Your task to perform on an android device: install app "Roku - Official Remote Control" Image 0: 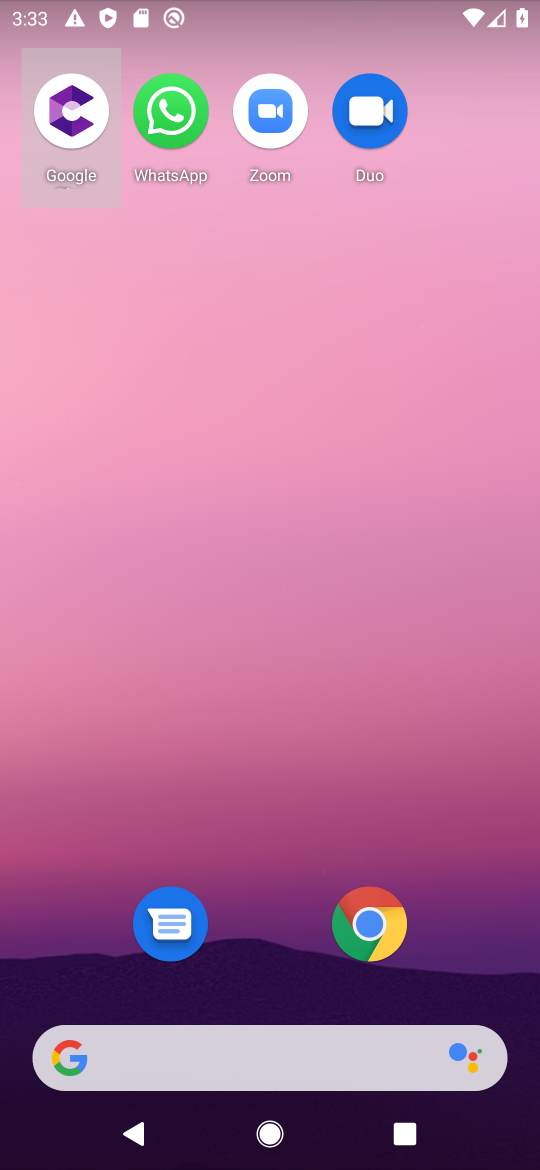
Step 0: drag from (350, 1116) to (344, 192)
Your task to perform on an android device: install app "Roku - Official Remote Control" Image 1: 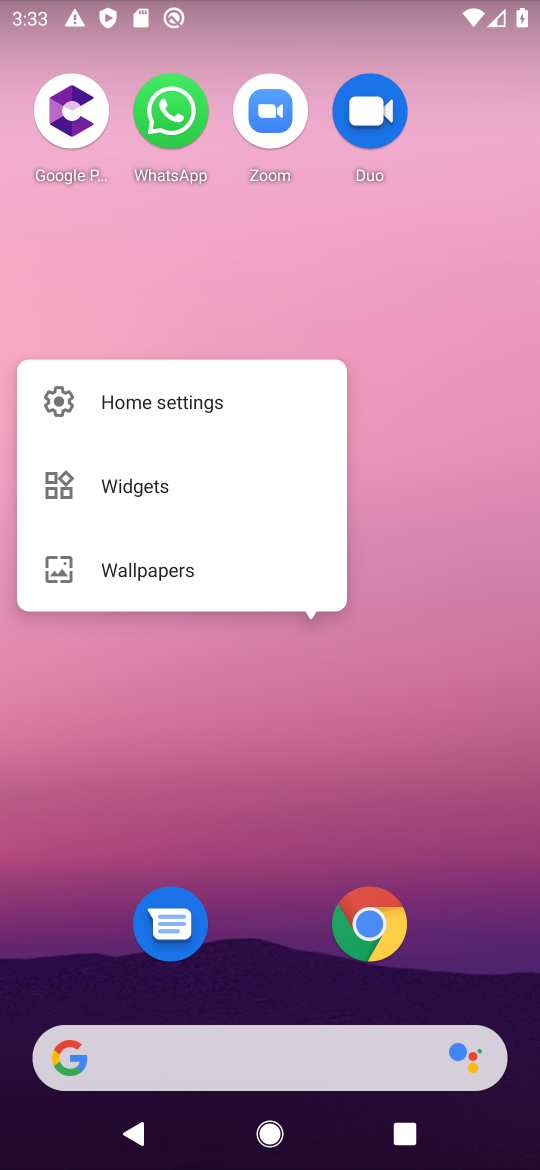
Step 1: drag from (222, 124) to (306, 158)
Your task to perform on an android device: install app "Roku - Official Remote Control" Image 2: 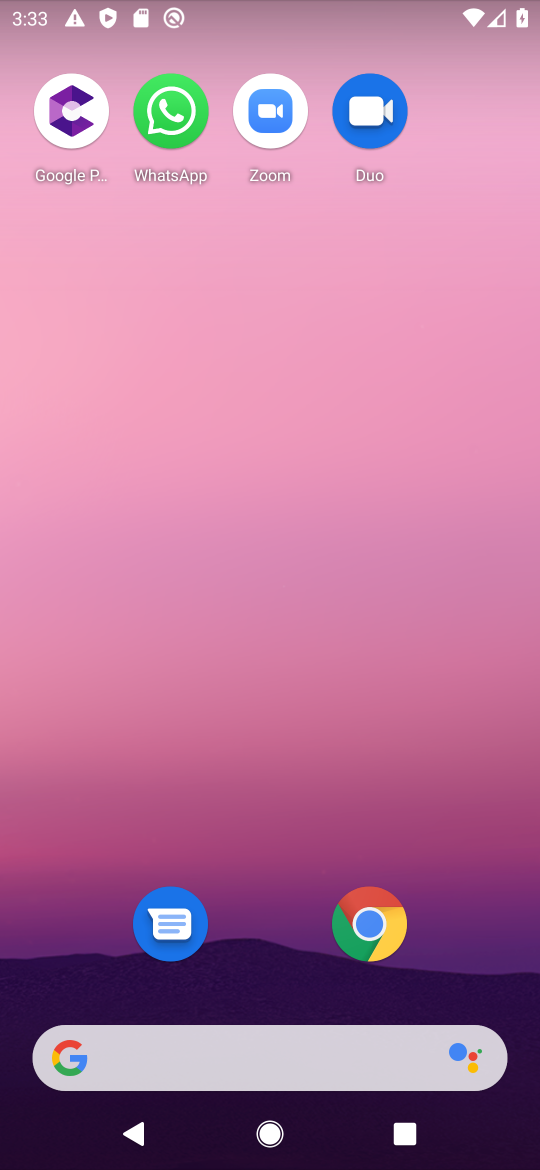
Step 2: click (307, 205)
Your task to perform on an android device: install app "Roku - Official Remote Control" Image 3: 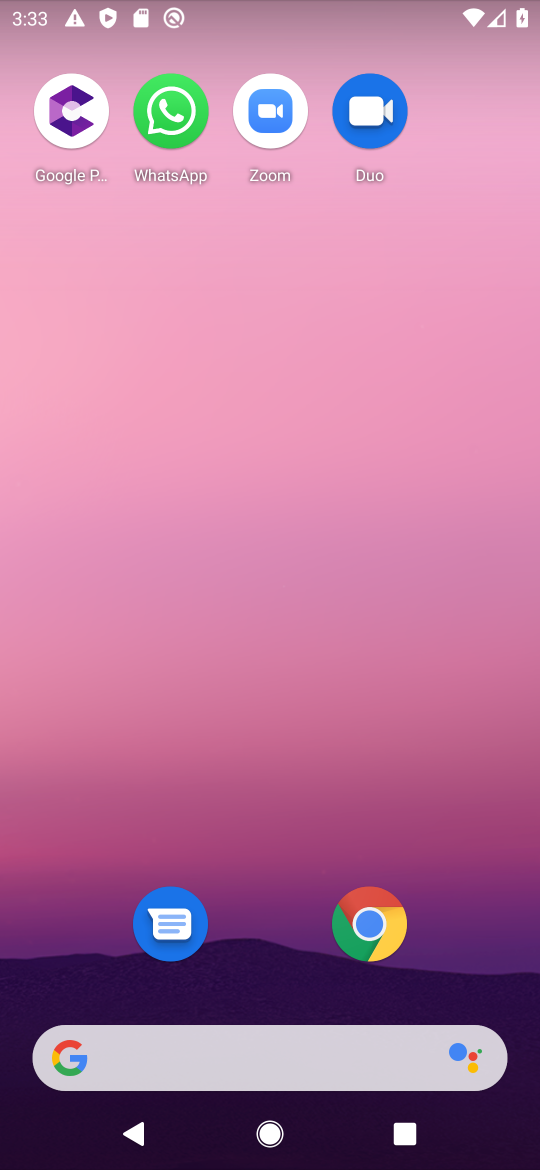
Step 3: drag from (193, 463) to (263, 235)
Your task to perform on an android device: install app "Roku - Official Remote Control" Image 4: 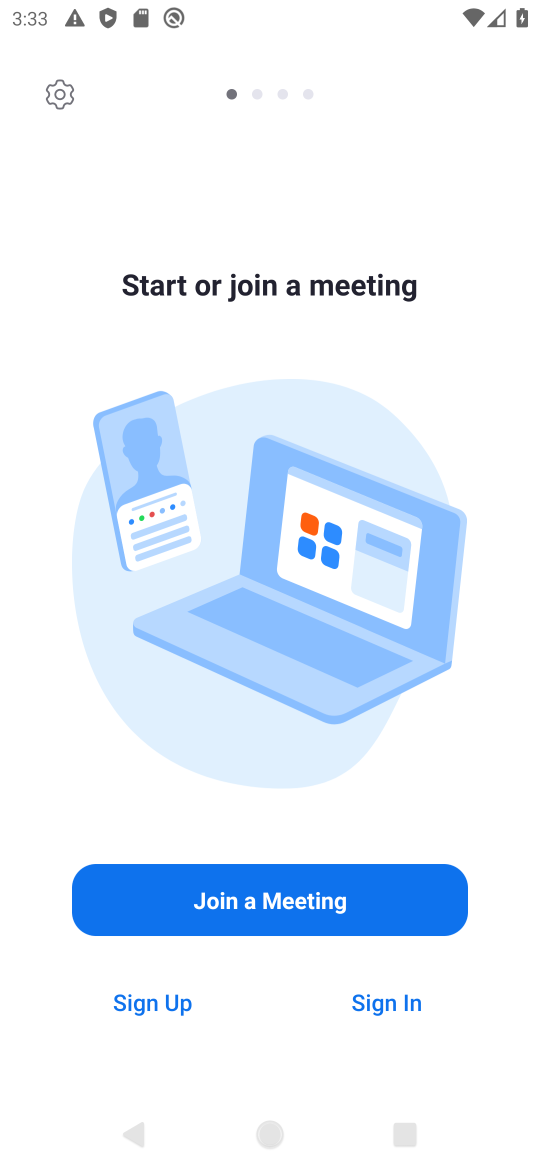
Step 4: drag from (260, 1075) to (187, 414)
Your task to perform on an android device: install app "Roku - Official Remote Control" Image 5: 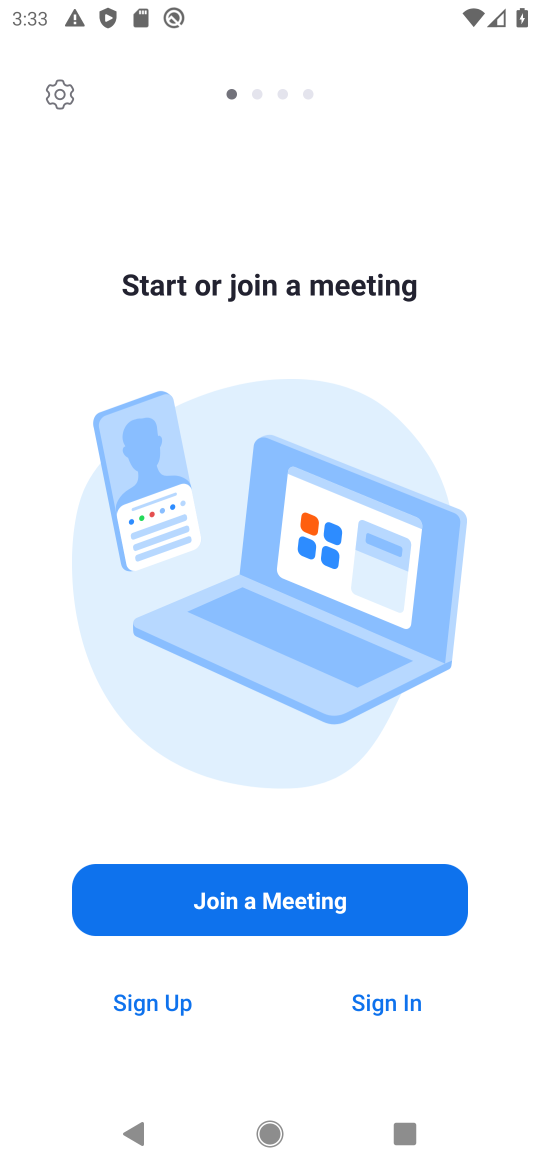
Step 5: press back button
Your task to perform on an android device: install app "Roku - Official Remote Control" Image 6: 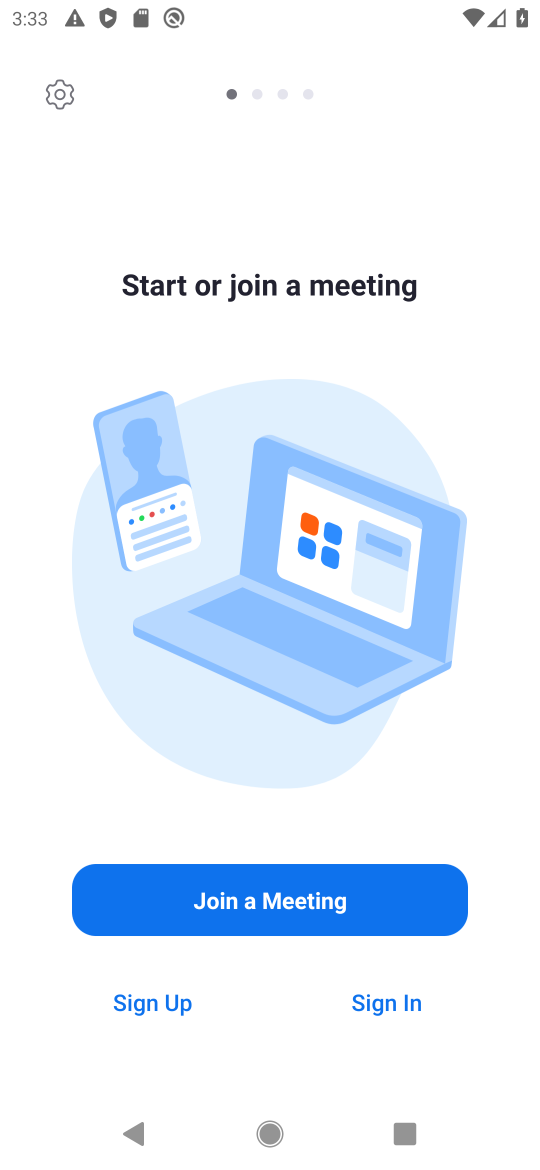
Step 6: press back button
Your task to perform on an android device: install app "Roku - Official Remote Control" Image 7: 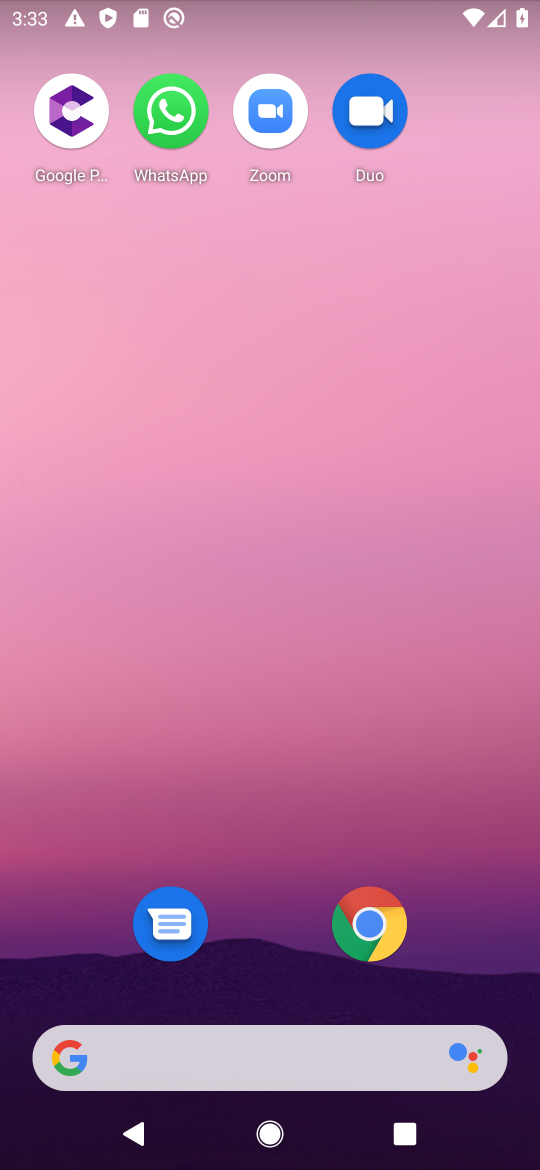
Step 7: press back button
Your task to perform on an android device: install app "Roku - Official Remote Control" Image 8: 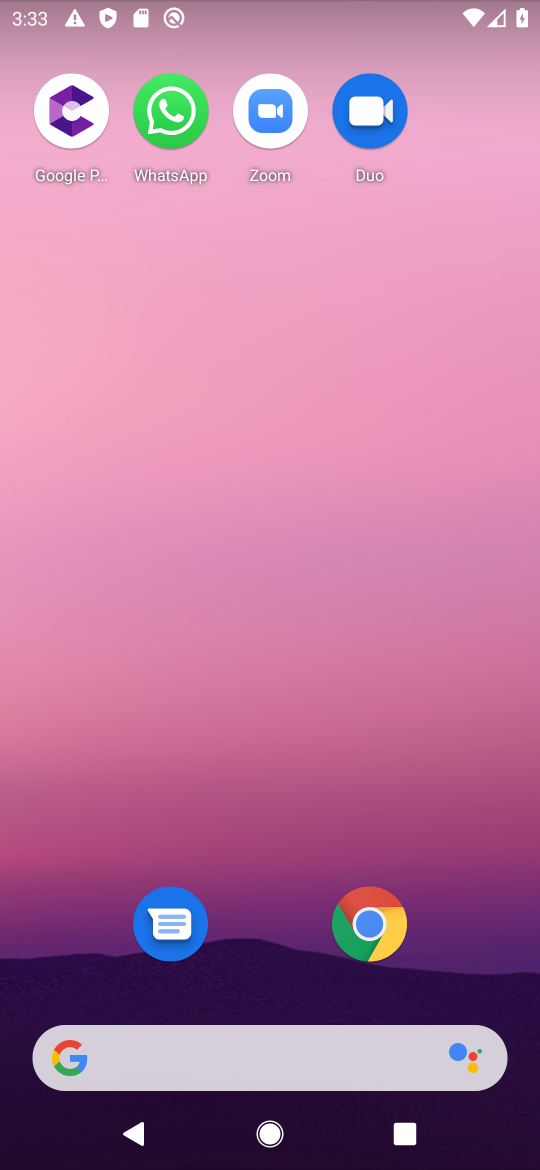
Step 8: click (235, 495)
Your task to perform on an android device: install app "Roku - Official Remote Control" Image 9: 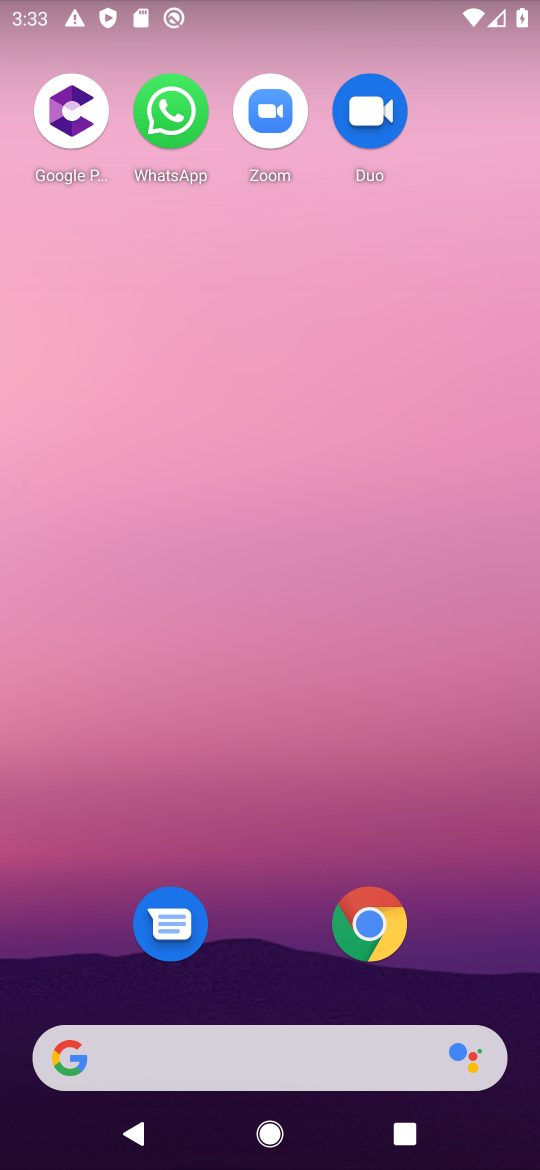
Step 9: drag from (327, 985) to (257, 600)
Your task to perform on an android device: install app "Roku - Official Remote Control" Image 10: 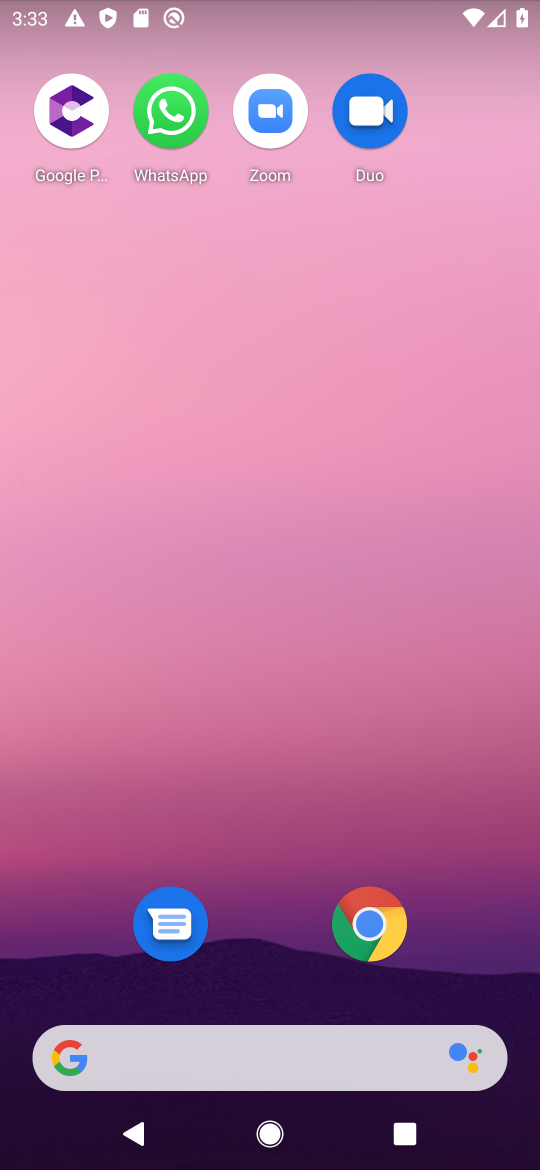
Step 10: drag from (357, 1074) to (278, 631)
Your task to perform on an android device: install app "Roku - Official Remote Control" Image 11: 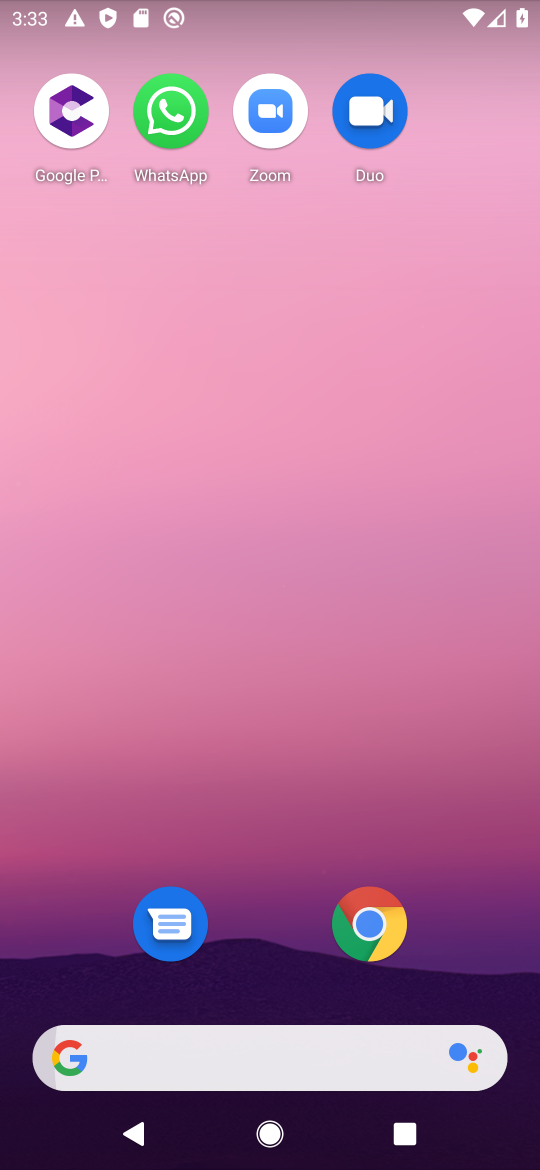
Step 11: click (317, 504)
Your task to perform on an android device: install app "Roku - Official Remote Control" Image 12: 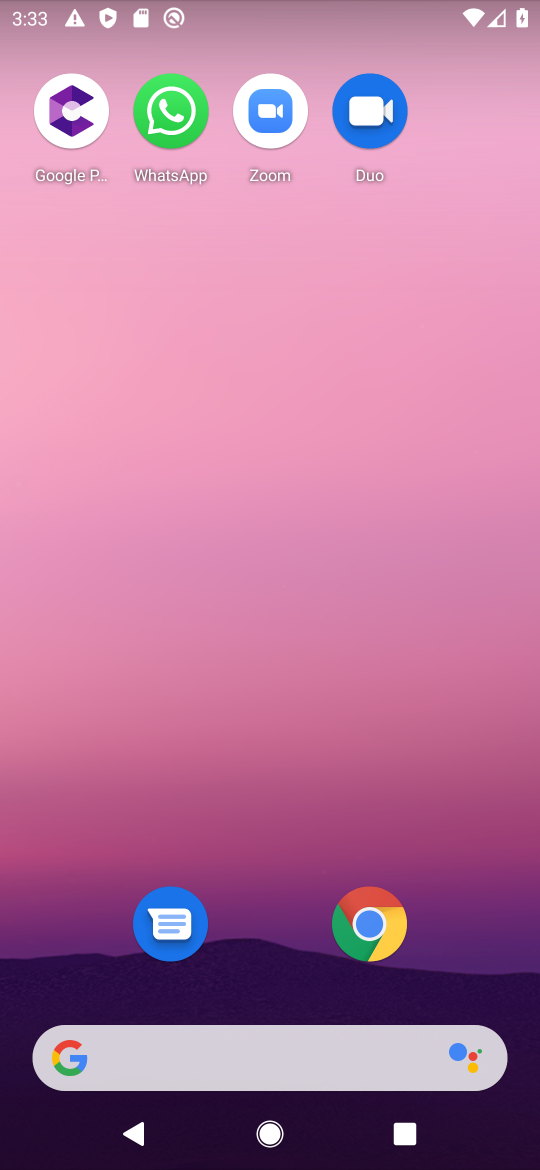
Step 12: drag from (365, 912) to (320, 343)
Your task to perform on an android device: install app "Roku - Official Remote Control" Image 13: 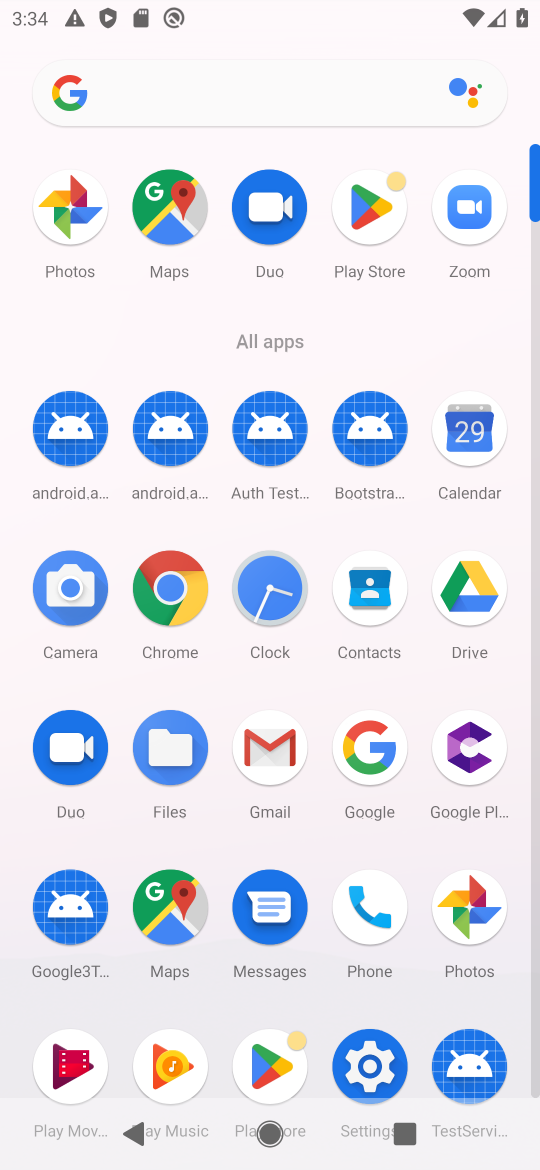
Step 13: click (361, 202)
Your task to perform on an android device: install app "Roku - Official Remote Control" Image 14: 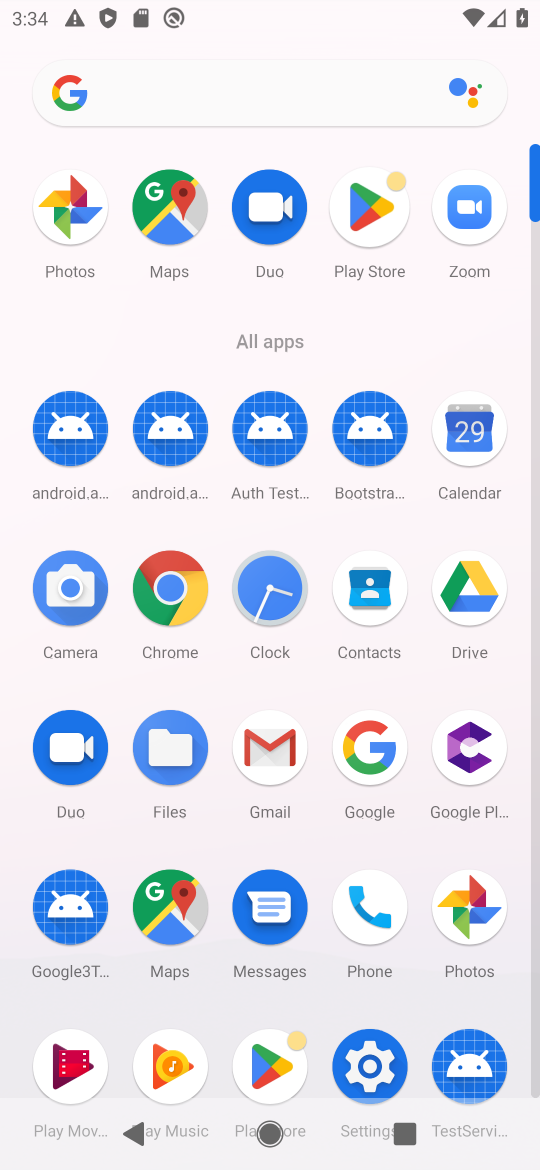
Step 14: click (361, 202)
Your task to perform on an android device: install app "Roku - Official Remote Control" Image 15: 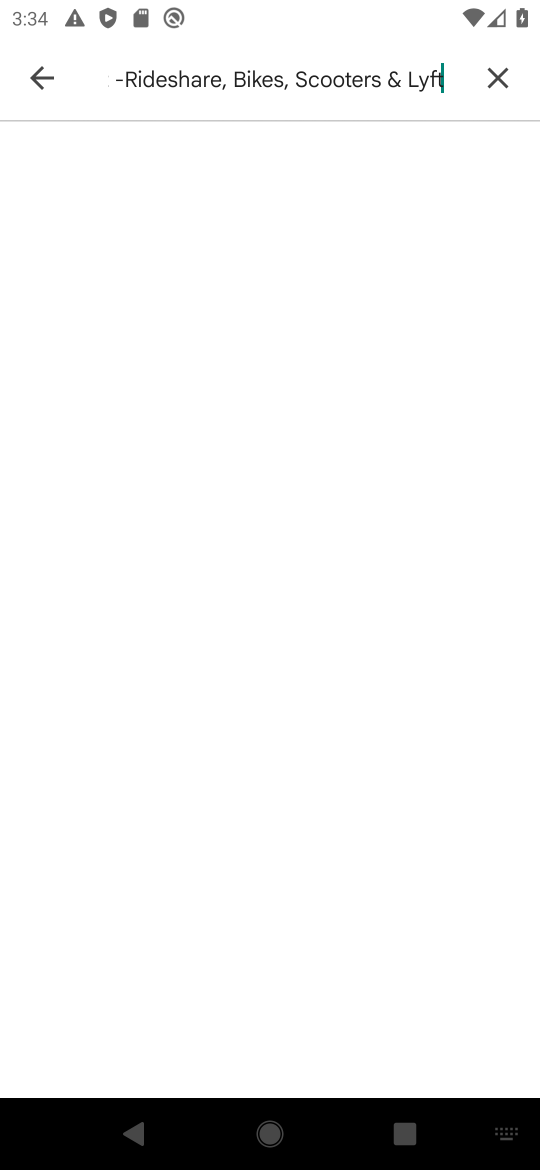
Step 15: click (37, 61)
Your task to perform on an android device: install app "Roku - Official Remote Control" Image 16: 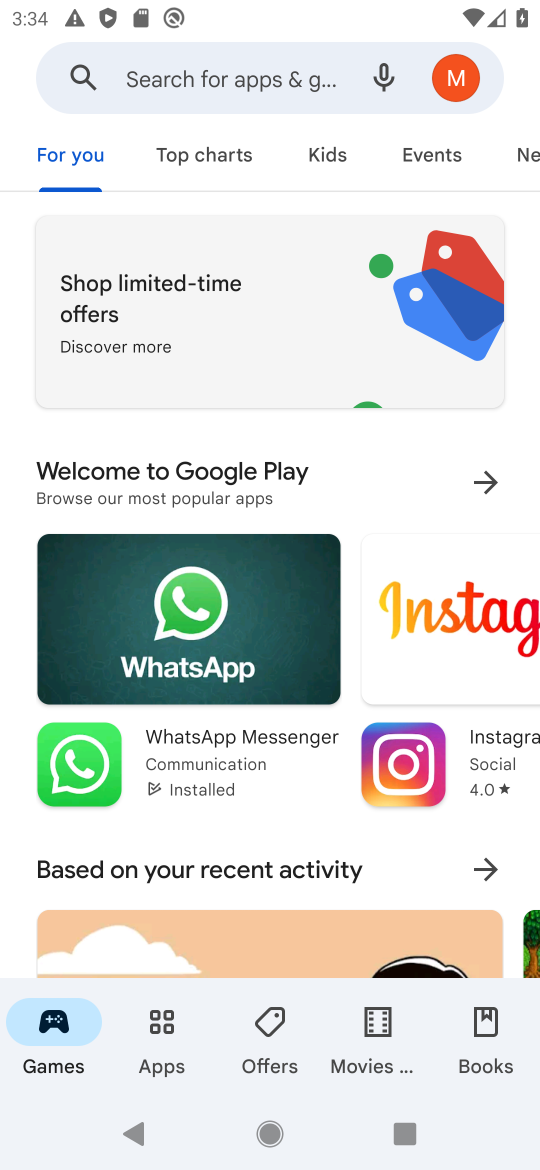
Step 16: click (151, 63)
Your task to perform on an android device: install app "Roku - Official Remote Control" Image 17: 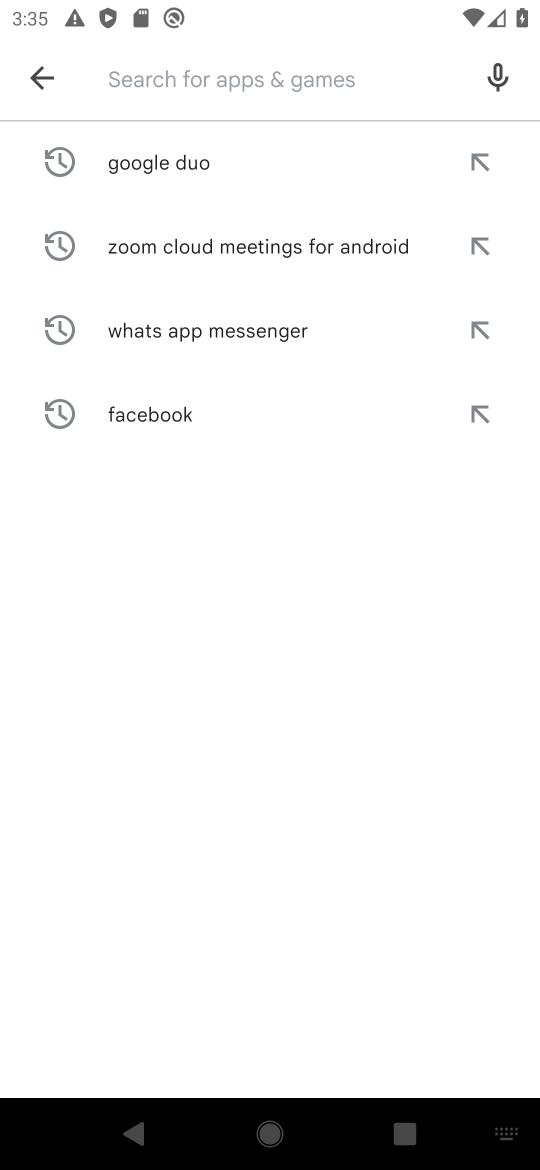
Step 17: type "Roku- Official Remote Control"
Your task to perform on an android device: install app "Roku - Official Remote Control" Image 18: 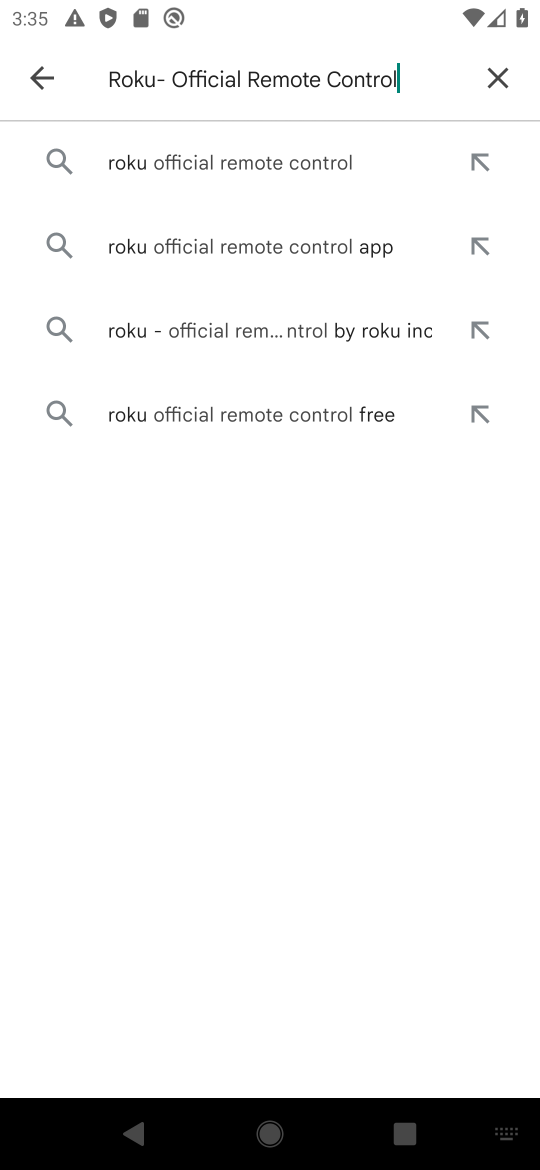
Step 18: click (304, 164)
Your task to perform on an android device: install app "Roku - Official Remote Control" Image 19: 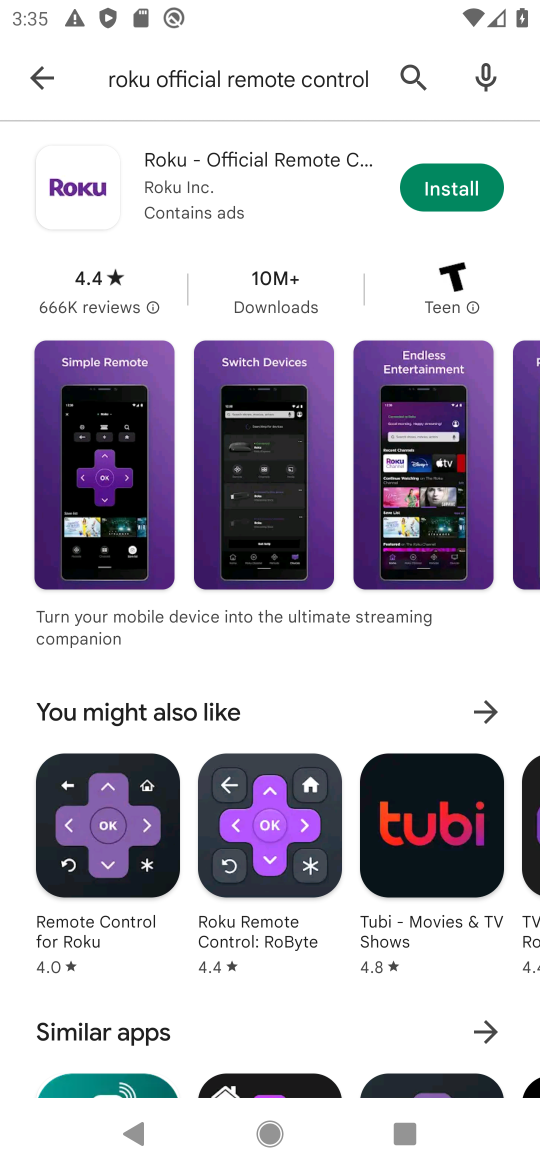
Step 19: click (482, 189)
Your task to perform on an android device: install app "Roku - Official Remote Control" Image 20: 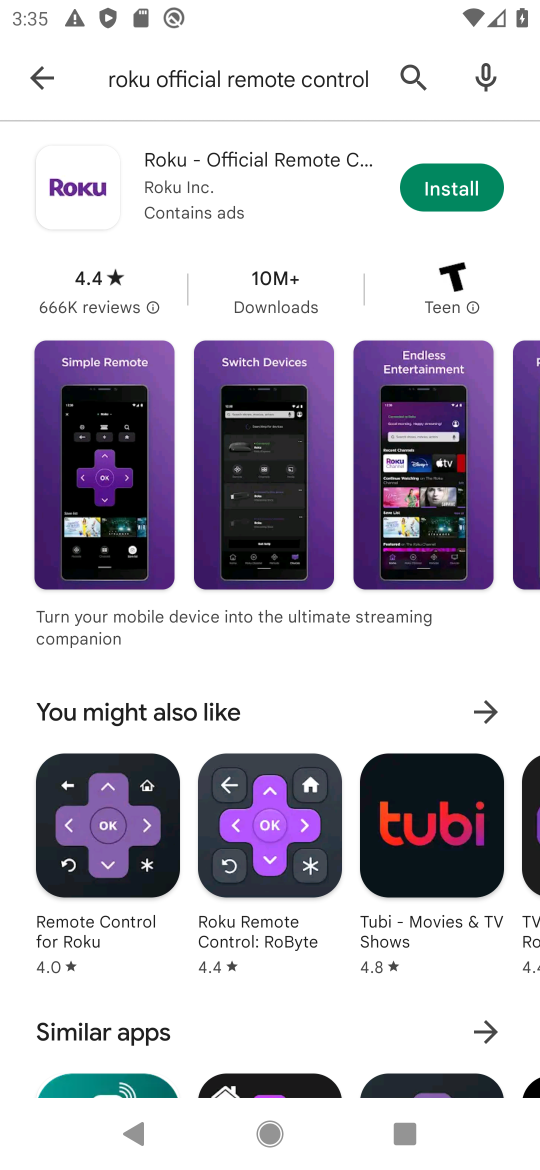
Step 20: click (478, 189)
Your task to perform on an android device: install app "Roku - Official Remote Control" Image 21: 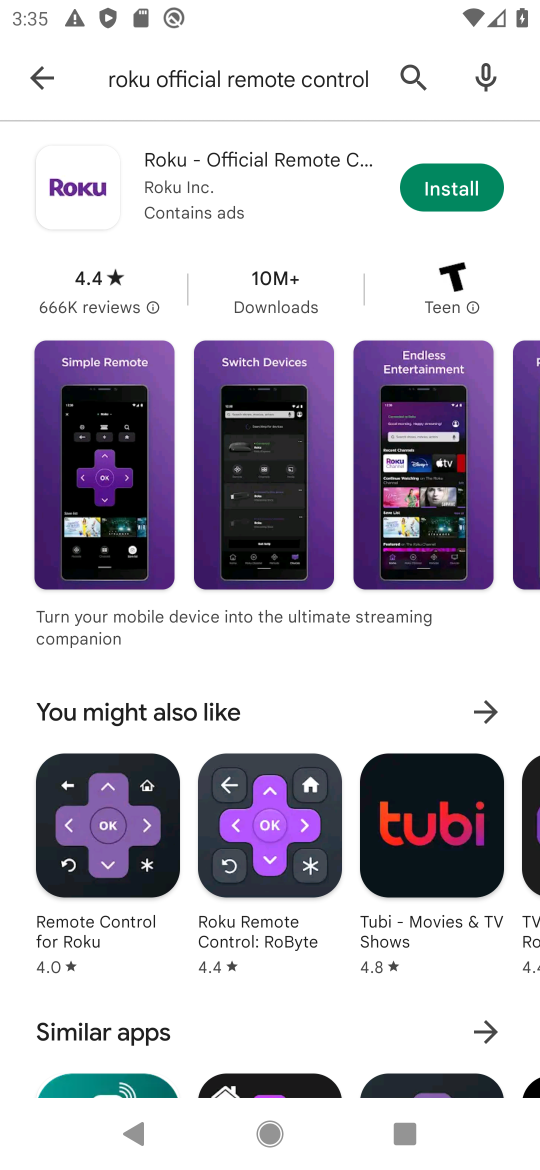
Step 21: click (422, 160)
Your task to perform on an android device: install app "Roku - Official Remote Control" Image 22: 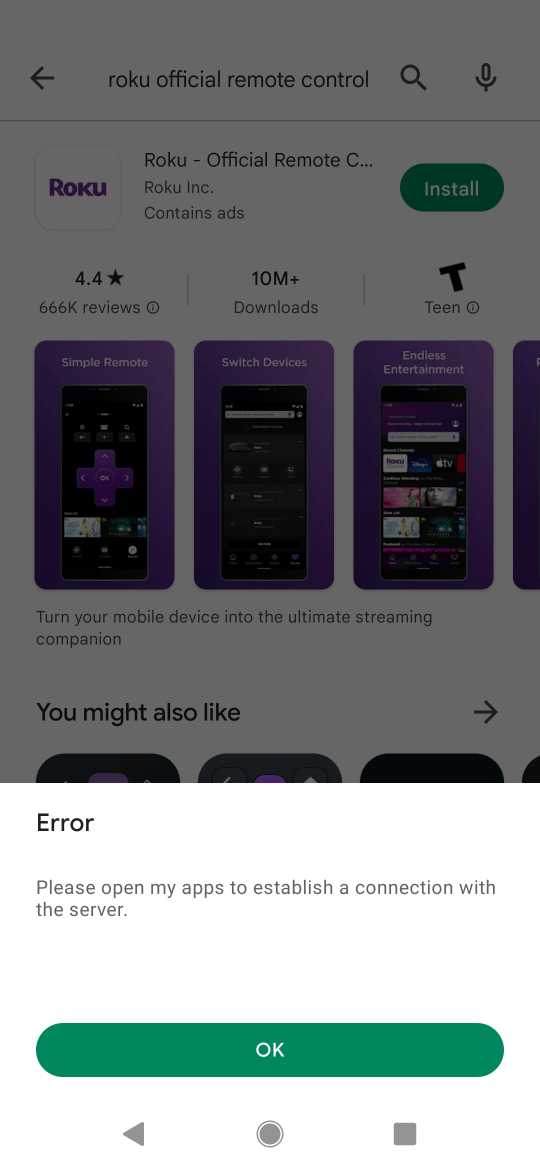
Step 22: click (304, 1056)
Your task to perform on an android device: install app "Roku - Official Remote Control" Image 23: 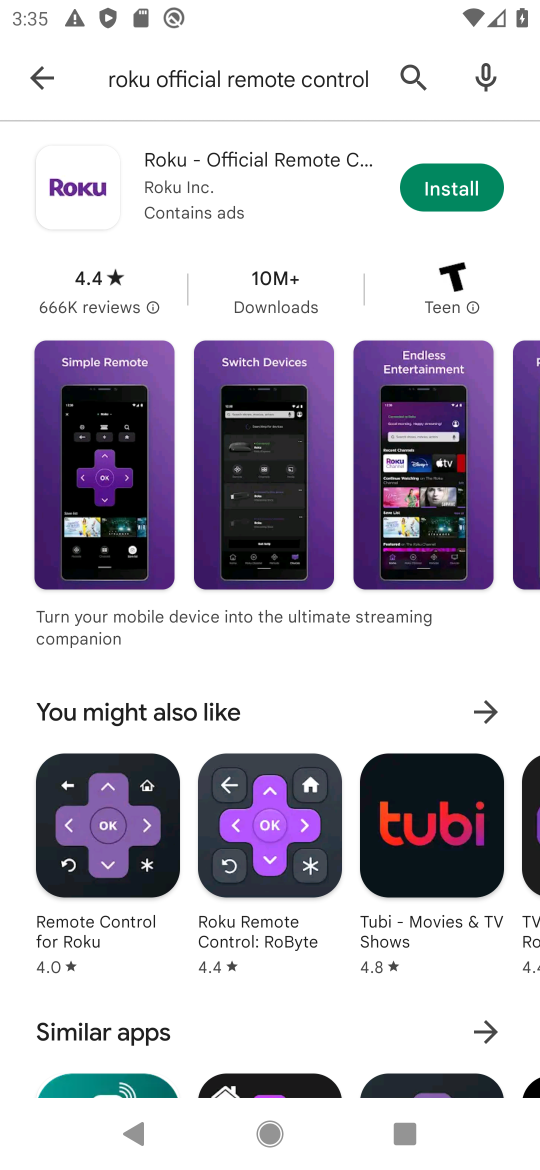
Step 23: click (470, 194)
Your task to perform on an android device: install app "Roku - Official Remote Control" Image 24: 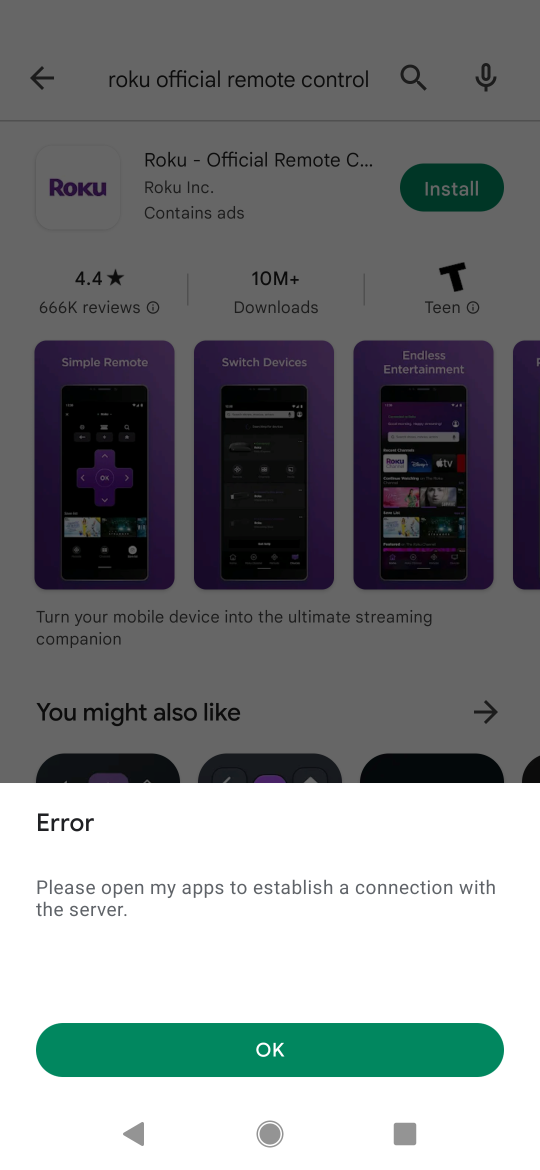
Step 24: click (296, 1053)
Your task to perform on an android device: install app "Roku - Official Remote Control" Image 25: 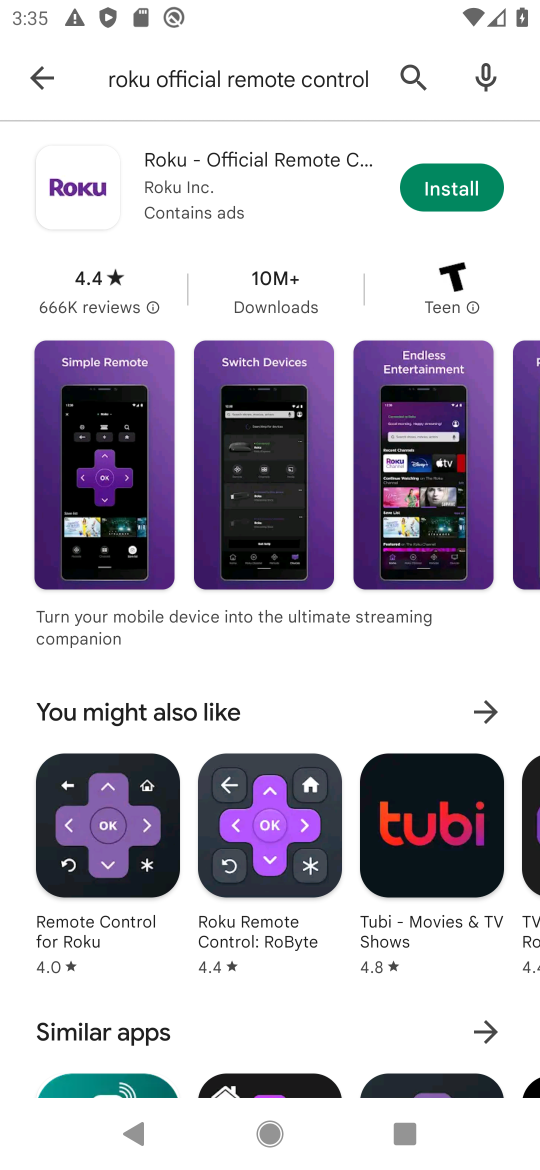
Step 25: click (296, 1053)
Your task to perform on an android device: install app "Roku - Official Remote Control" Image 26: 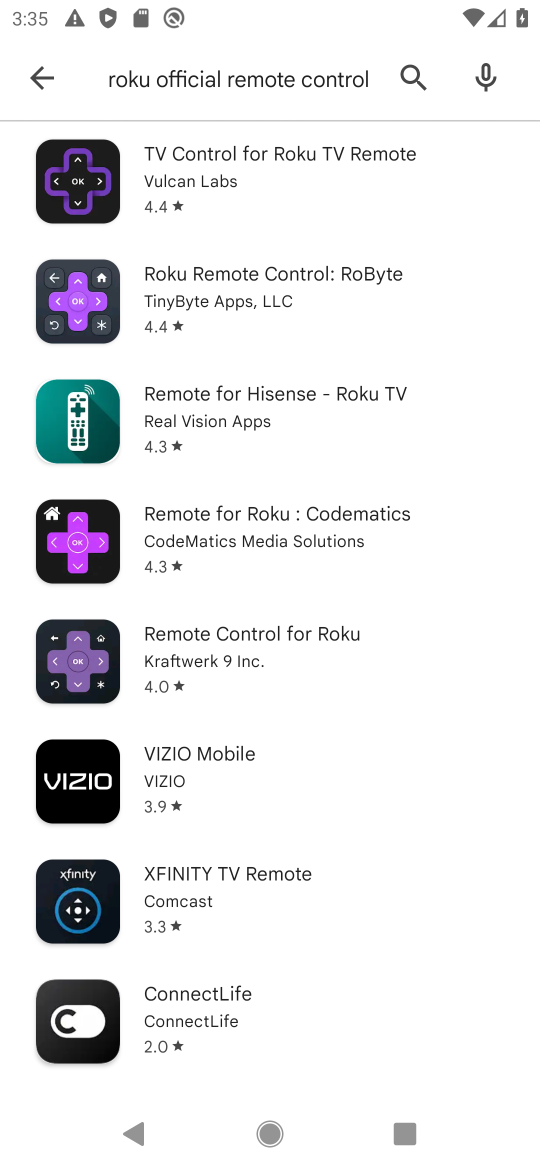
Step 26: task complete